Your task to perform on an android device: Open Android settings Image 0: 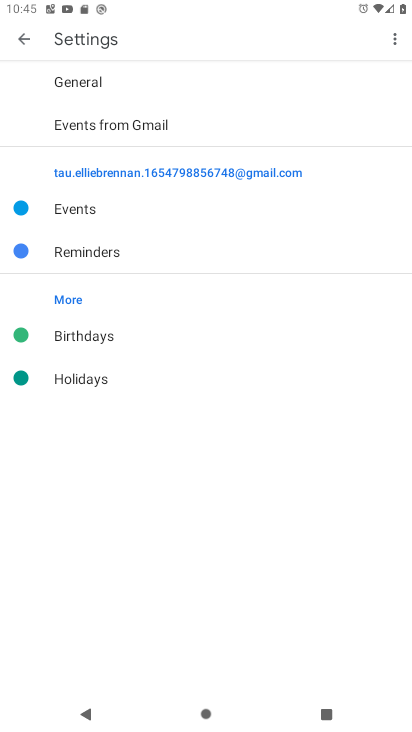
Step 0: press home button
Your task to perform on an android device: Open Android settings Image 1: 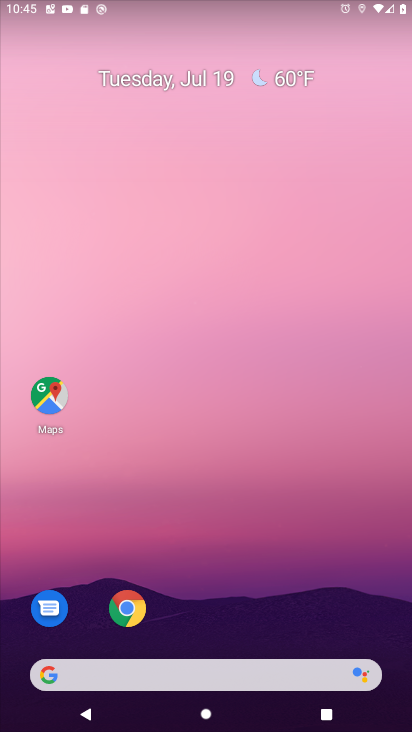
Step 1: drag from (212, 621) to (130, 0)
Your task to perform on an android device: Open Android settings Image 2: 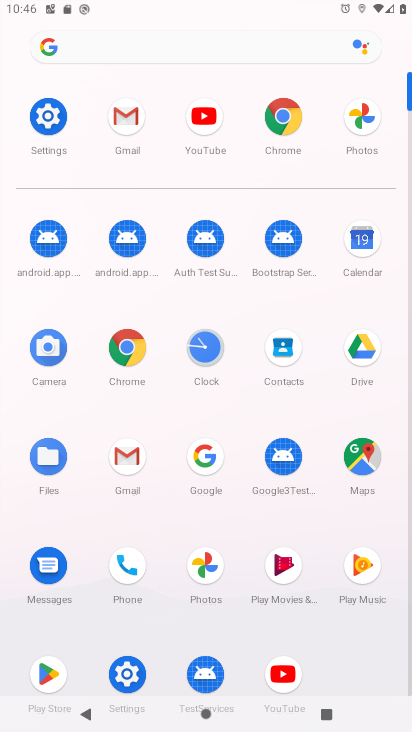
Step 2: click (125, 666)
Your task to perform on an android device: Open Android settings Image 3: 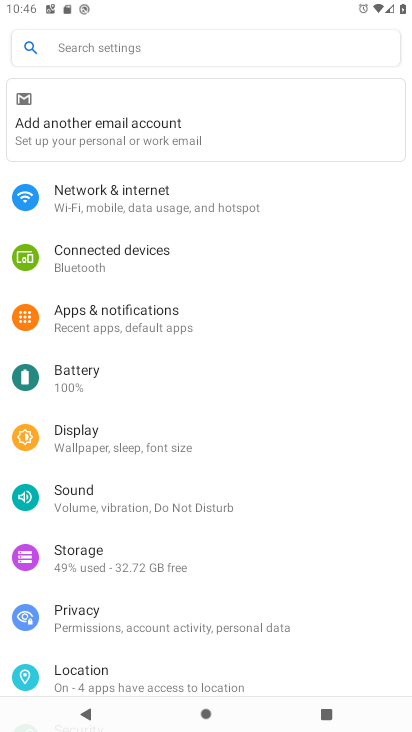
Step 3: task complete